Your task to perform on an android device: see sites visited before in the chrome app Image 0: 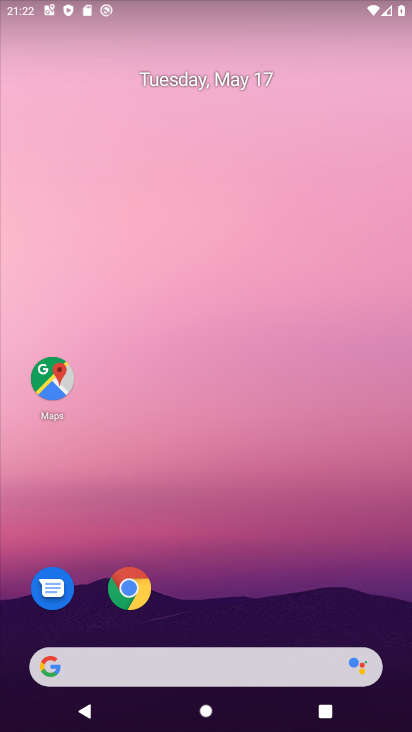
Step 0: click (130, 603)
Your task to perform on an android device: see sites visited before in the chrome app Image 1: 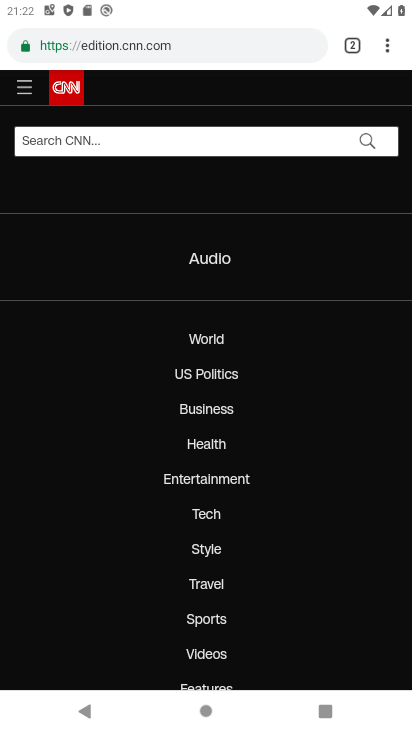
Step 1: click (382, 55)
Your task to perform on an android device: see sites visited before in the chrome app Image 2: 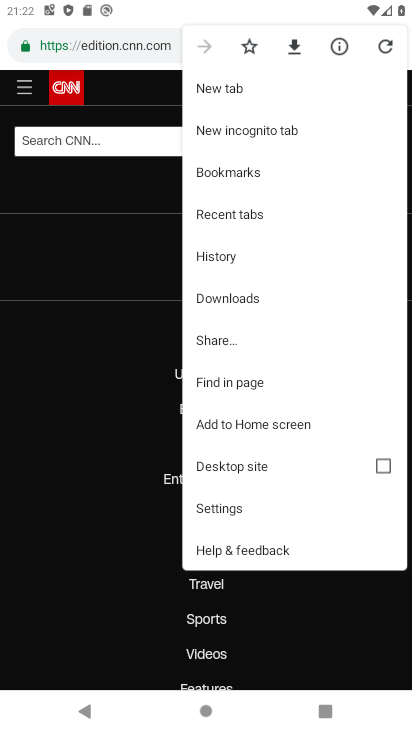
Step 2: click (249, 509)
Your task to perform on an android device: see sites visited before in the chrome app Image 3: 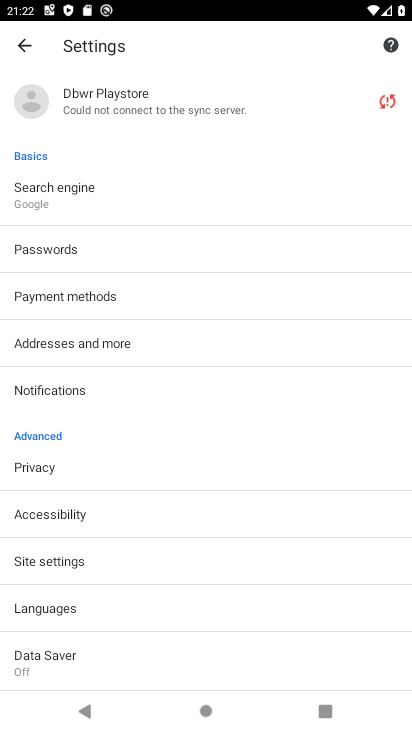
Step 3: click (84, 574)
Your task to perform on an android device: see sites visited before in the chrome app Image 4: 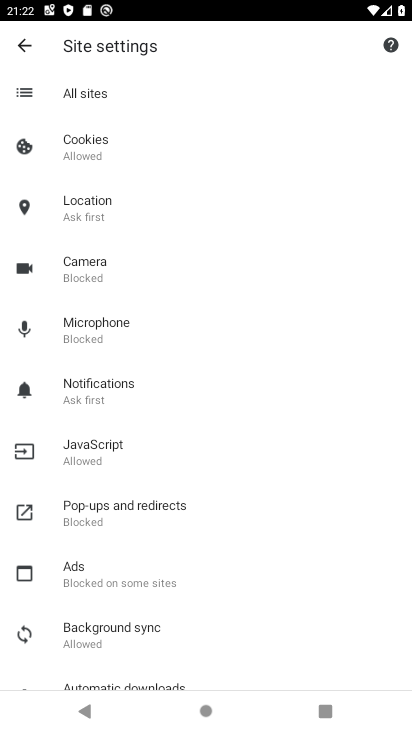
Step 4: click (36, 23)
Your task to perform on an android device: see sites visited before in the chrome app Image 5: 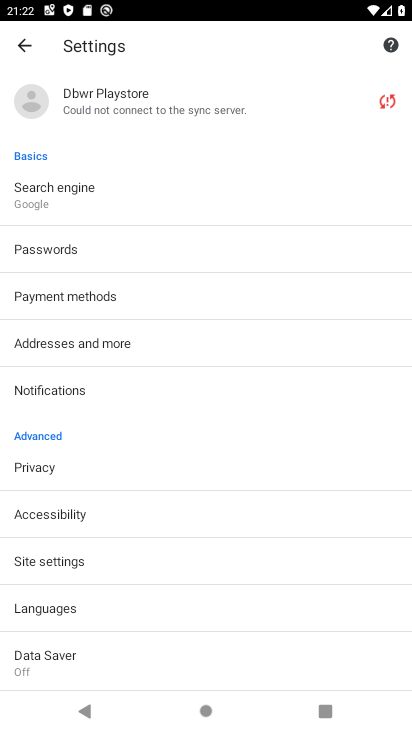
Step 5: drag from (129, 531) to (141, 619)
Your task to perform on an android device: see sites visited before in the chrome app Image 6: 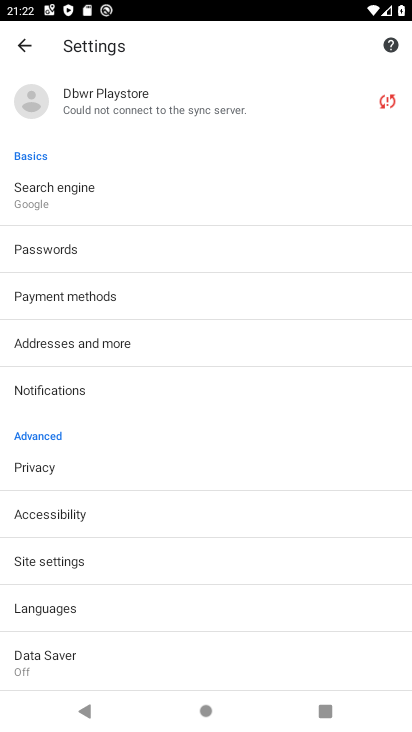
Step 6: click (19, 45)
Your task to perform on an android device: see sites visited before in the chrome app Image 7: 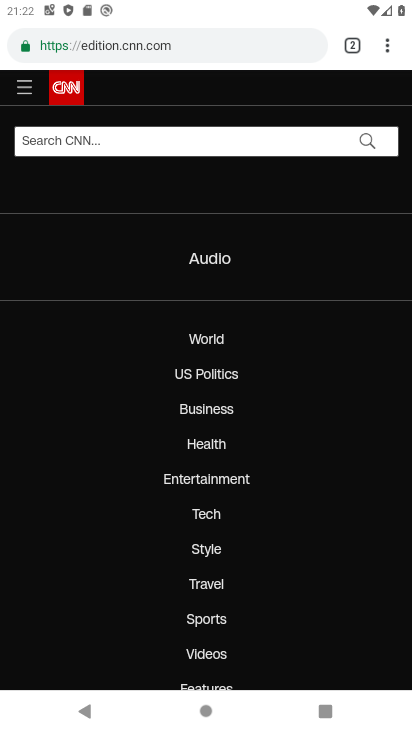
Step 7: click (382, 37)
Your task to perform on an android device: see sites visited before in the chrome app Image 8: 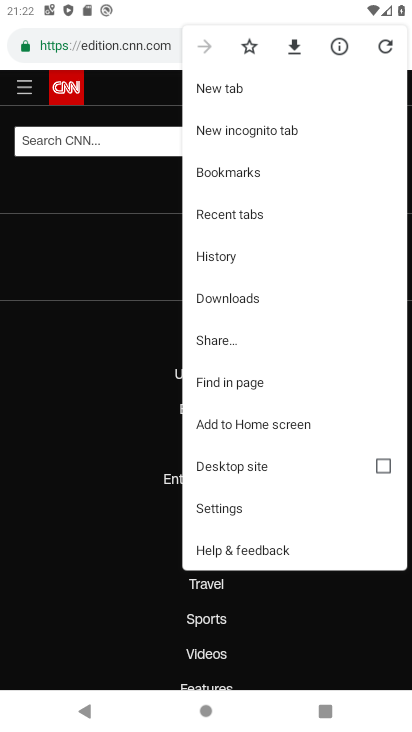
Step 8: click (216, 254)
Your task to perform on an android device: see sites visited before in the chrome app Image 9: 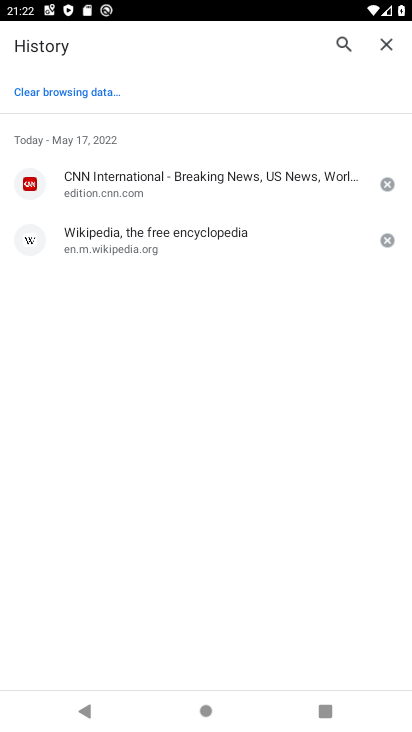
Step 9: task complete